Your task to perform on an android device: change notifications settings Image 0: 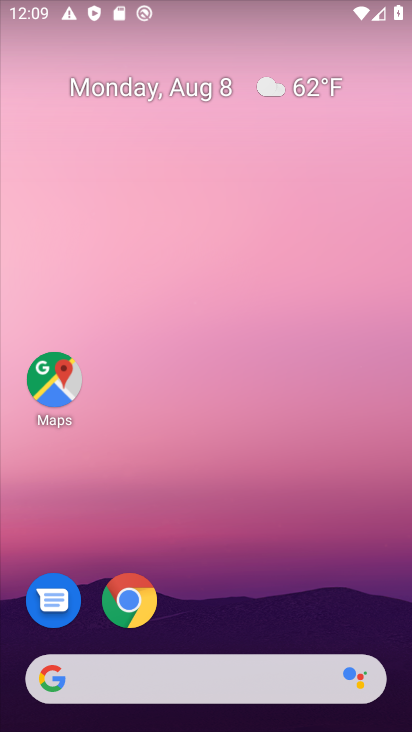
Step 0: drag from (204, 625) to (204, 192)
Your task to perform on an android device: change notifications settings Image 1: 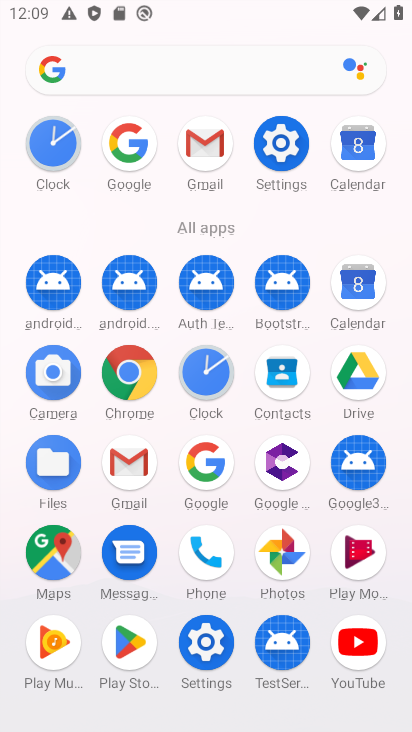
Step 1: click (263, 163)
Your task to perform on an android device: change notifications settings Image 2: 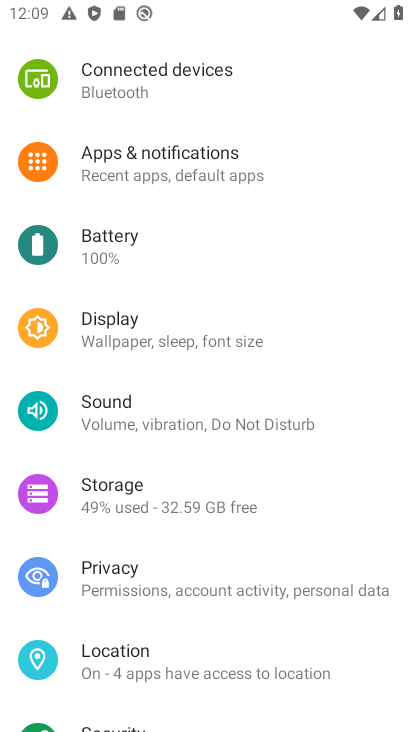
Step 2: click (205, 184)
Your task to perform on an android device: change notifications settings Image 3: 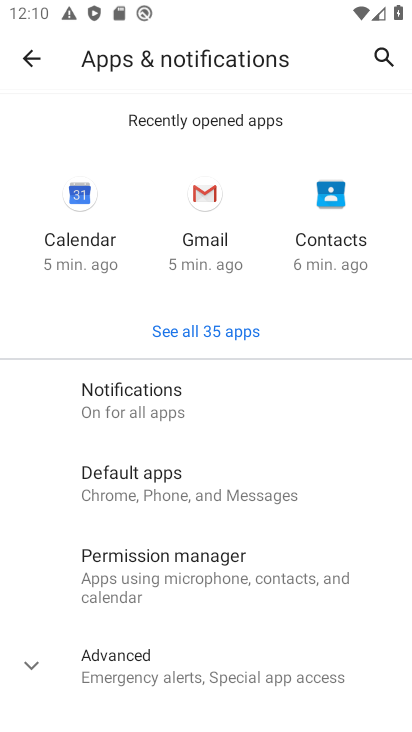
Step 3: click (109, 422)
Your task to perform on an android device: change notifications settings Image 4: 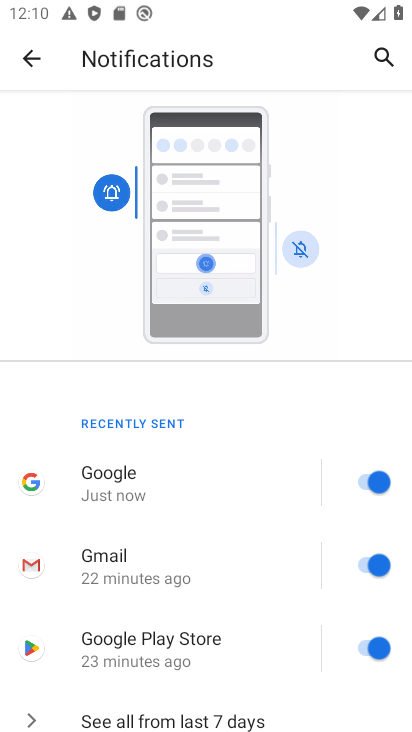
Step 4: task complete